Your task to perform on an android device: show emergency info Image 0: 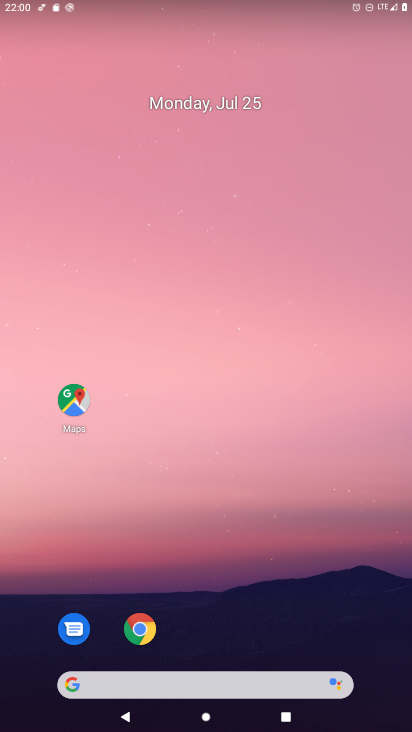
Step 0: drag from (176, 674) to (191, 53)
Your task to perform on an android device: show emergency info Image 1: 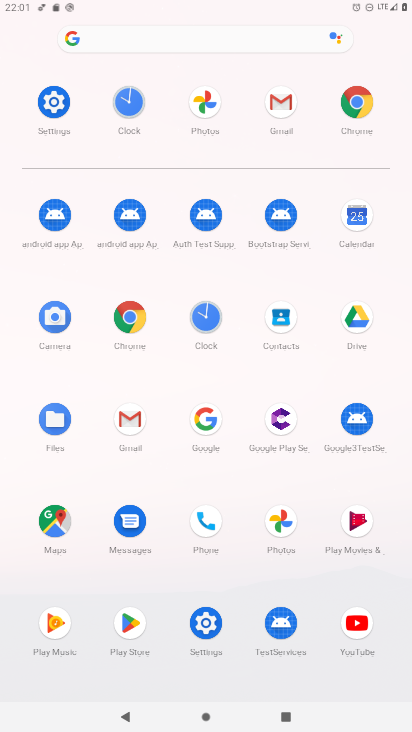
Step 1: click (206, 622)
Your task to perform on an android device: show emergency info Image 2: 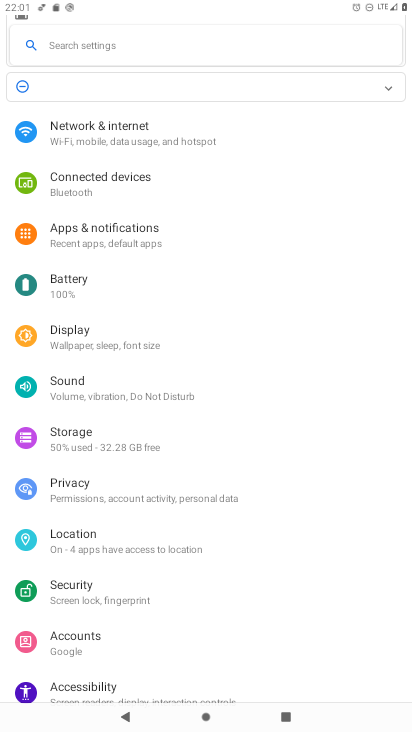
Step 2: drag from (143, 633) to (236, 370)
Your task to perform on an android device: show emergency info Image 3: 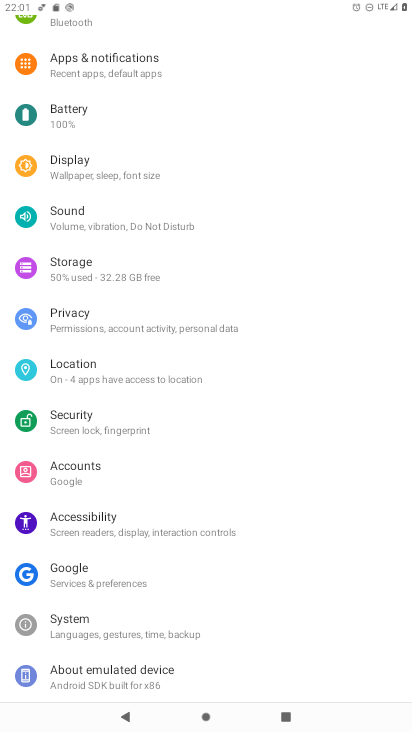
Step 3: click (87, 671)
Your task to perform on an android device: show emergency info Image 4: 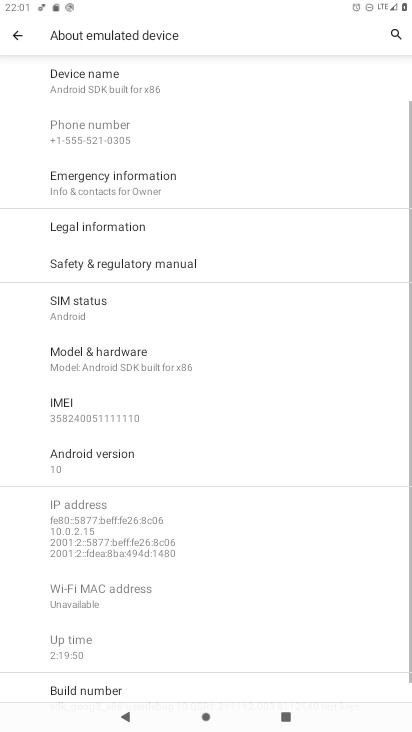
Step 4: click (131, 190)
Your task to perform on an android device: show emergency info Image 5: 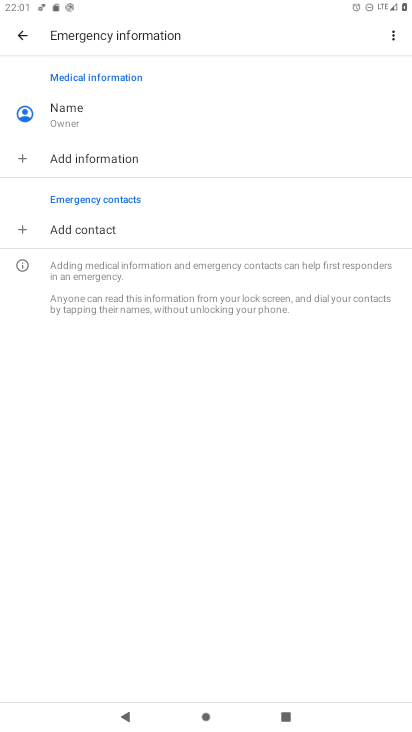
Step 5: task complete